Your task to perform on an android device: set the stopwatch Image 0: 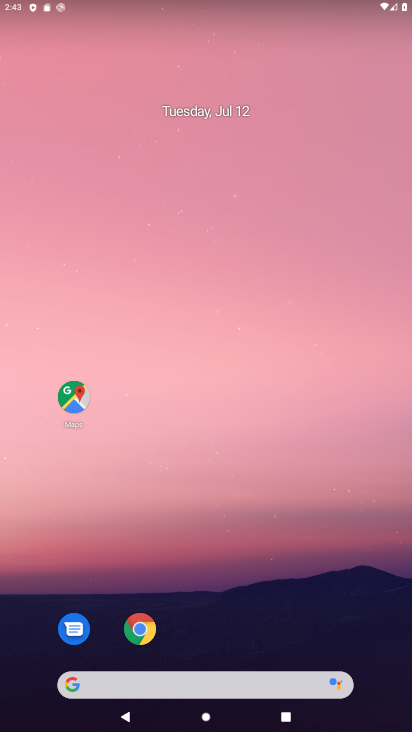
Step 0: drag from (262, 505) to (280, 0)
Your task to perform on an android device: set the stopwatch Image 1: 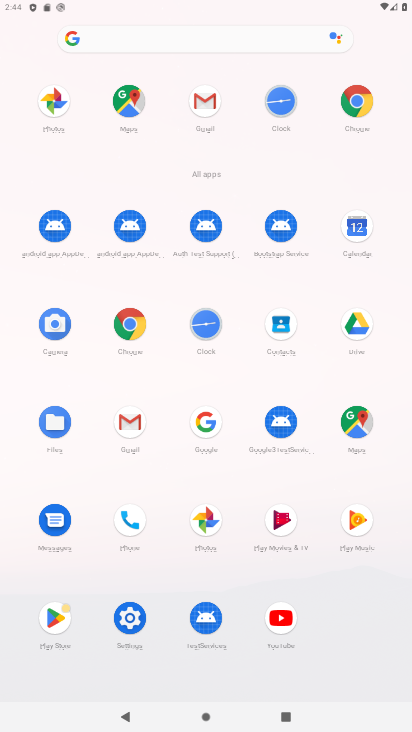
Step 1: click (279, 87)
Your task to perform on an android device: set the stopwatch Image 2: 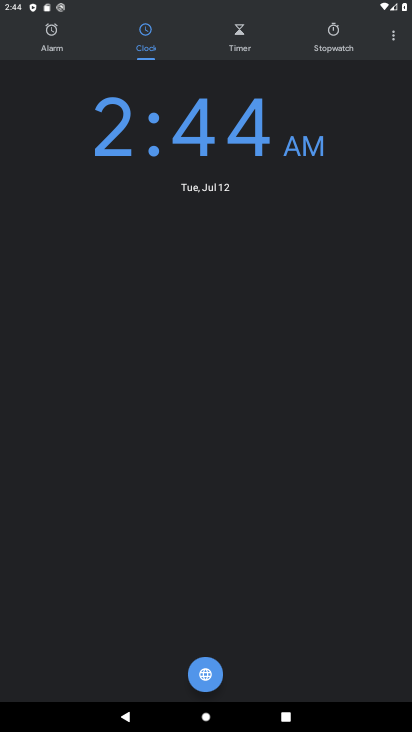
Step 2: click (339, 39)
Your task to perform on an android device: set the stopwatch Image 3: 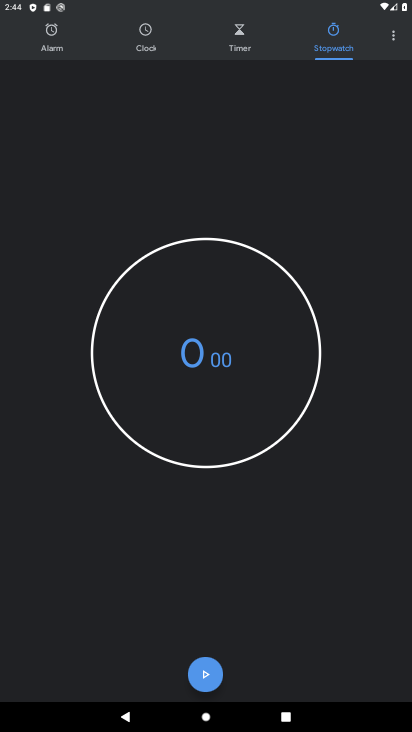
Step 3: click (203, 674)
Your task to perform on an android device: set the stopwatch Image 4: 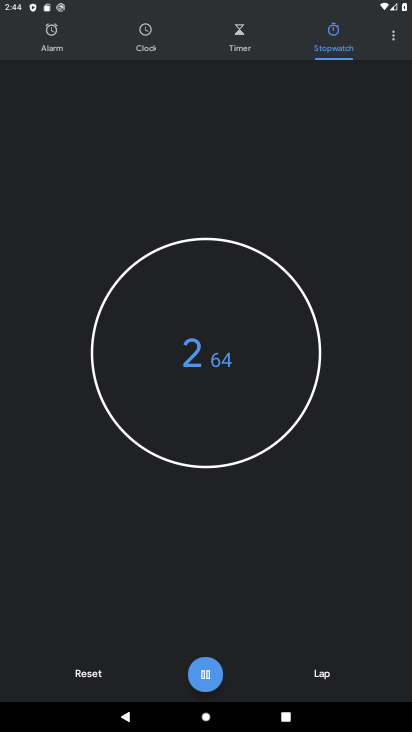
Step 4: task complete